Your task to perform on an android device: turn on wifi Image 0: 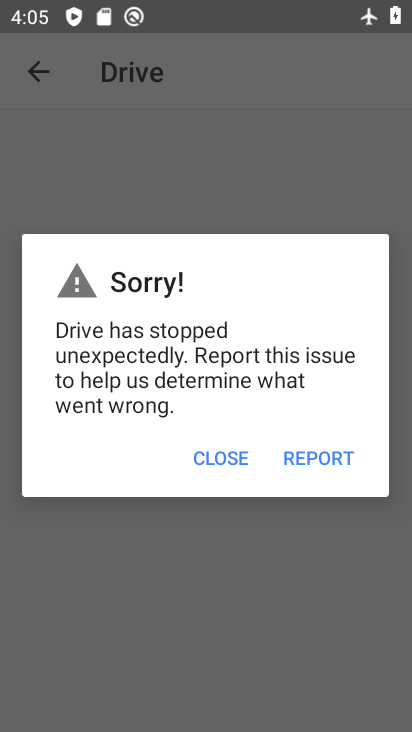
Step 0: drag from (112, 511) to (111, 432)
Your task to perform on an android device: turn on wifi Image 1: 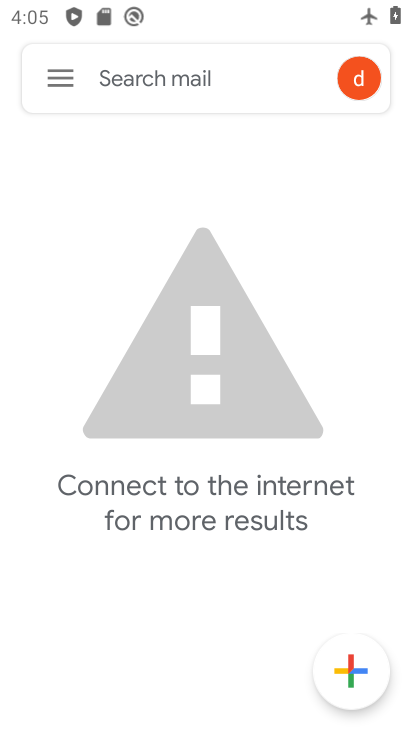
Step 1: press home button
Your task to perform on an android device: turn on wifi Image 2: 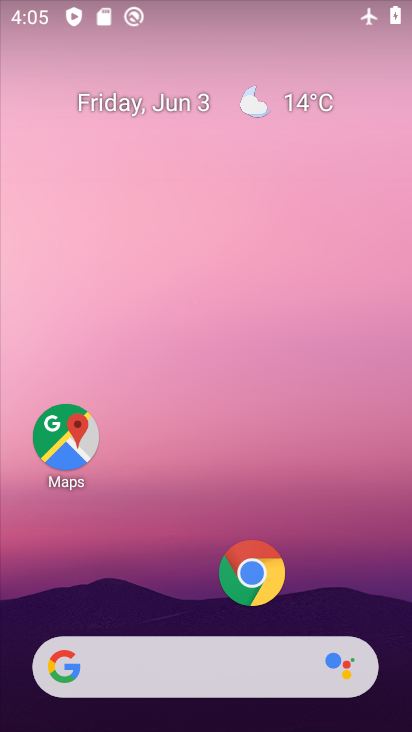
Step 2: drag from (164, 574) to (186, 340)
Your task to perform on an android device: turn on wifi Image 3: 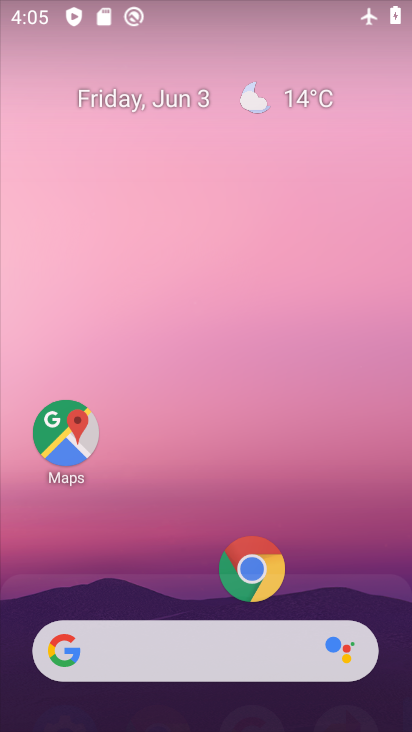
Step 3: drag from (211, 92) to (222, 17)
Your task to perform on an android device: turn on wifi Image 4: 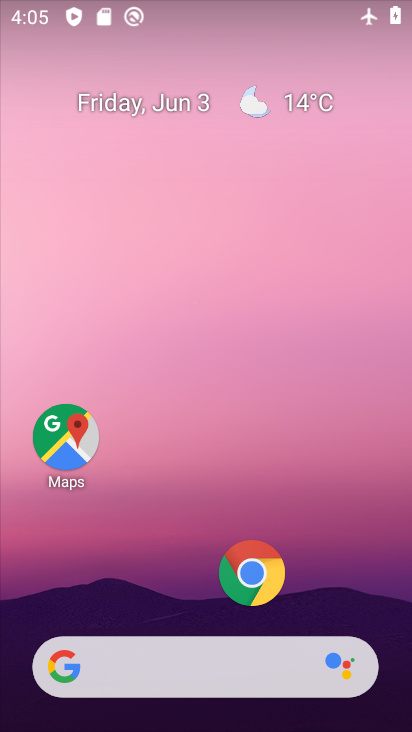
Step 4: drag from (184, 584) to (279, 2)
Your task to perform on an android device: turn on wifi Image 5: 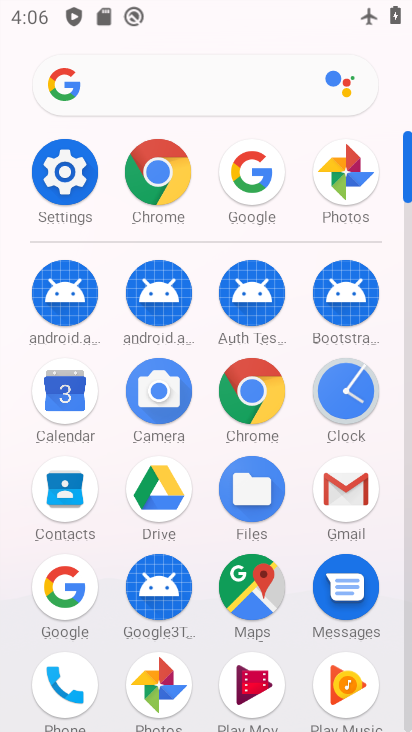
Step 5: click (44, 193)
Your task to perform on an android device: turn on wifi Image 6: 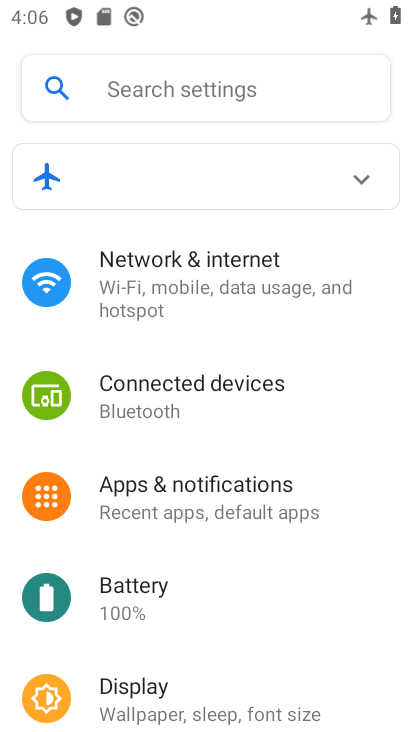
Step 6: click (176, 286)
Your task to perform on an android device: turn on wifi Image 7: 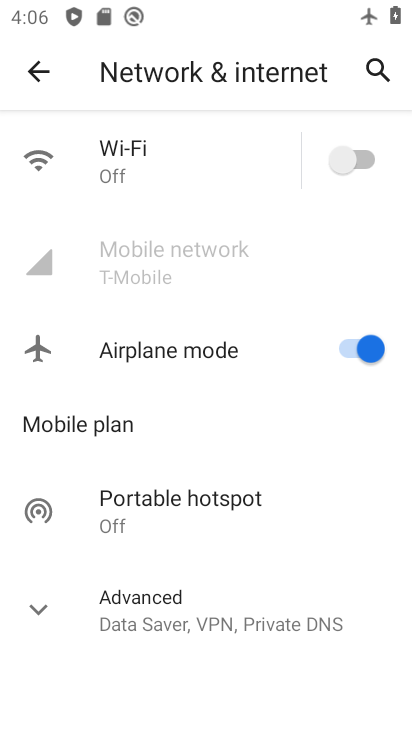
Step 7: click (361, 144)
Your task to perform on an android device: turn on wifi Image 8: 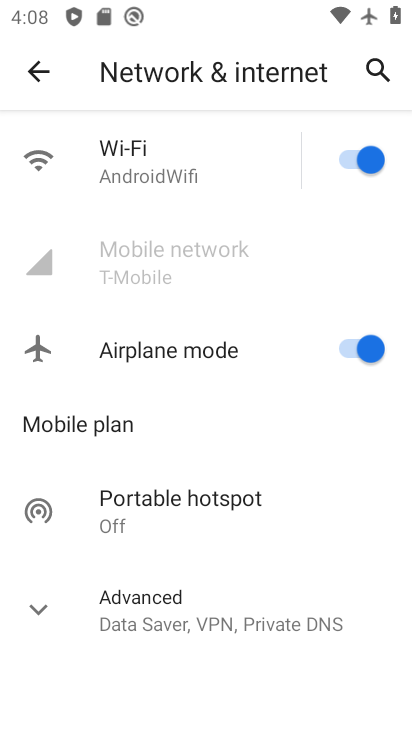
Step 8: task complete